Your task to perform on an android device: change the clock display to digital Image 0: 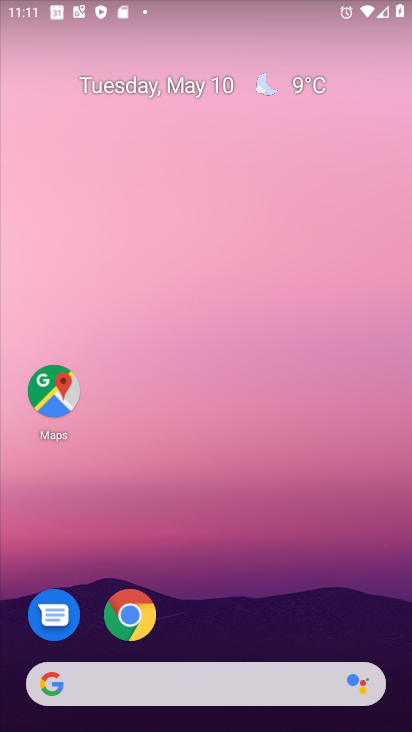
Step 0: drag from (211, 635) to (259, 183)
Your task to perform on an android device: change the clock display to digital Image 1: 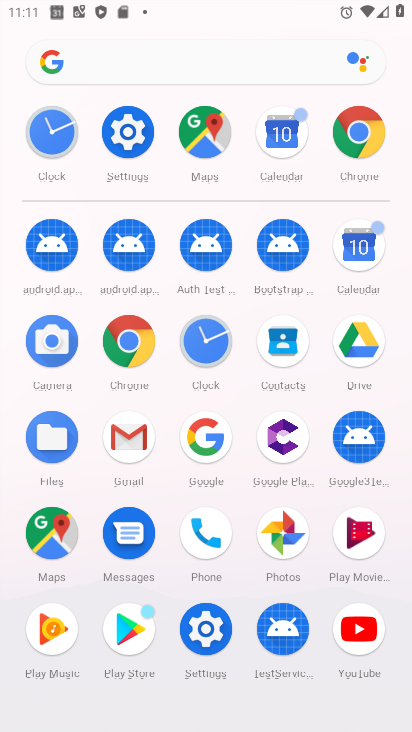
Step 1: click (206, 334)
Your task to perform on an android device: change the clock display to digital Image 2: 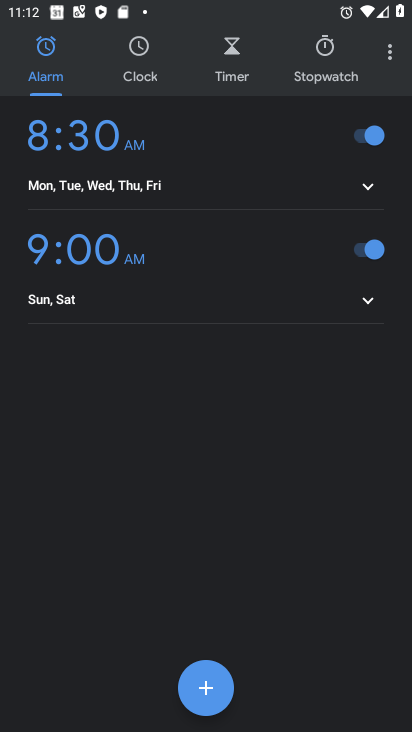
Step 2: click (384, 50)
Your task to perform on an android device: change the clock display to digital Image 3: 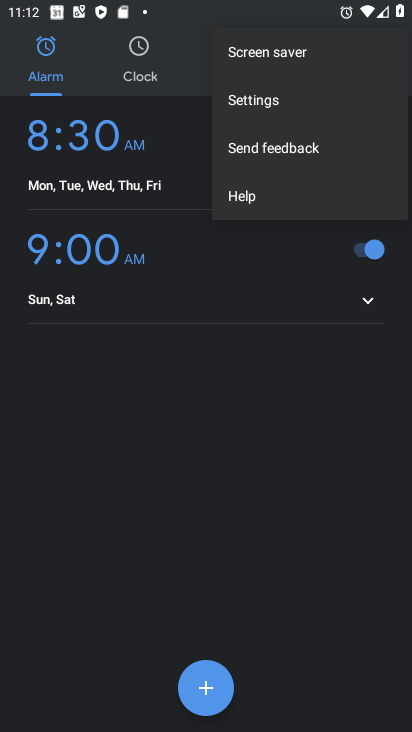
Step 3: click (286, 102)
Your task to perform on an android device: change the clock display to digital Image 4: 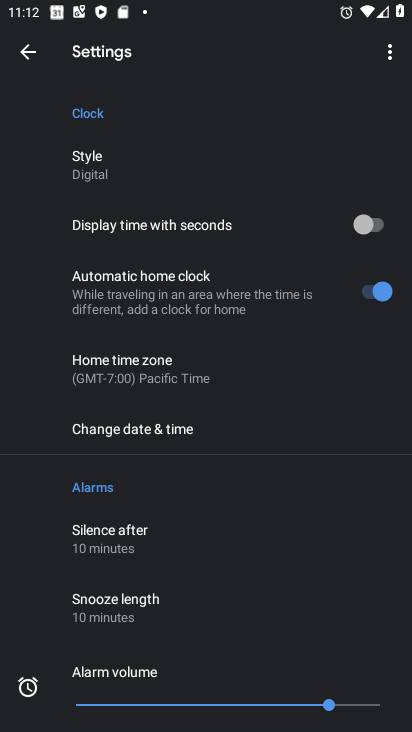
Step 4: click (123, 165)
Your task to perform on an android device: change the clock display to digital Image 5: 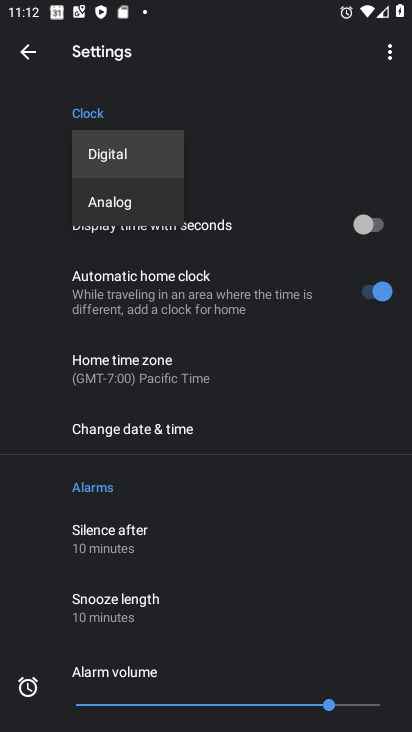
Step 5: click (133, 157)
Your task to perform on an android device: change the clock display to digital Image 6: 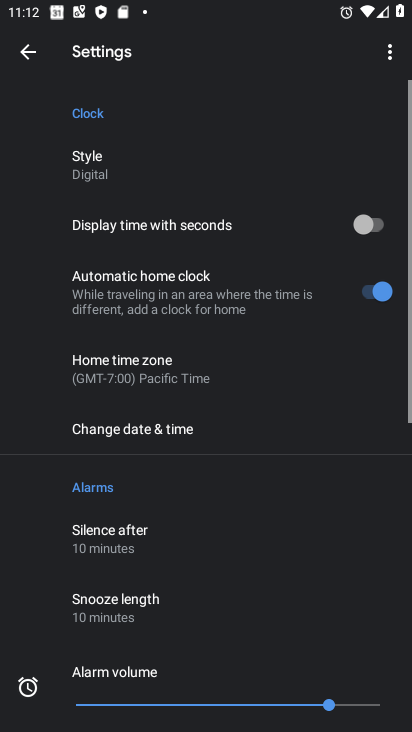
Step 6: task complete